Your task to perform on an android device: install app "Life360: Find Family & Friends" Image 0: 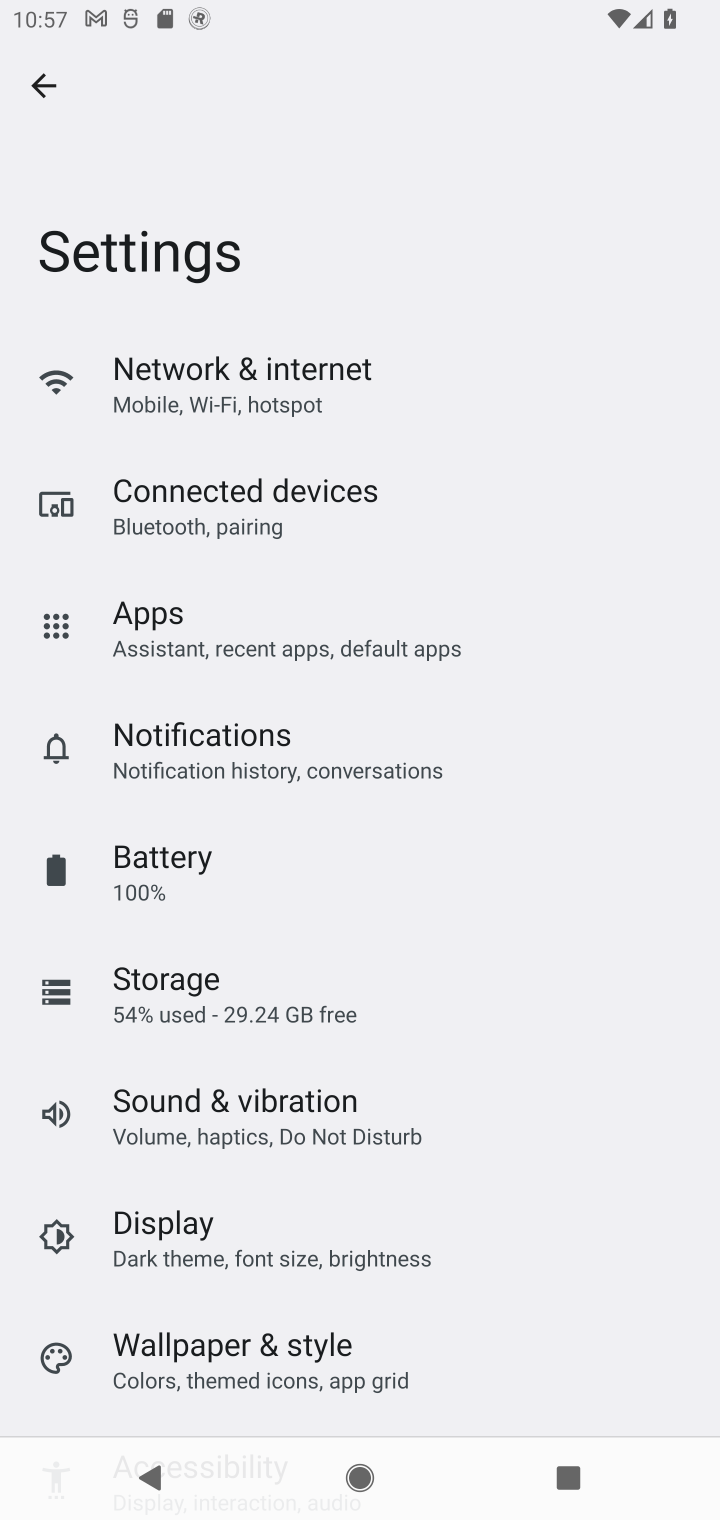
Step 0: press home button
Your task to perform on an android device: install app "Life360: Find Family & Friends" Image 1: 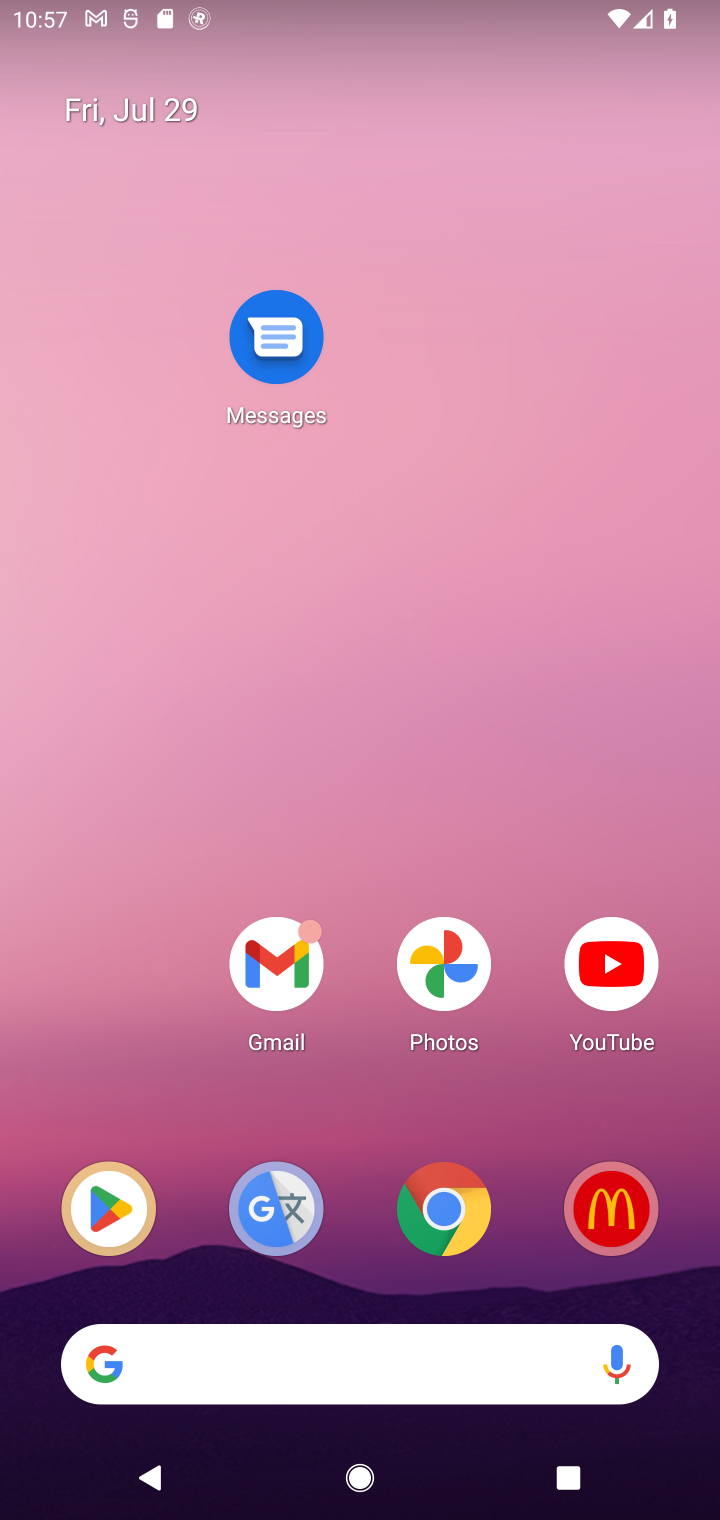
Step 1: drag from (211, 1341) to (307, 177)
Your task to perform on an android device: install app "Life360: Find Family & Friends" Image 2: 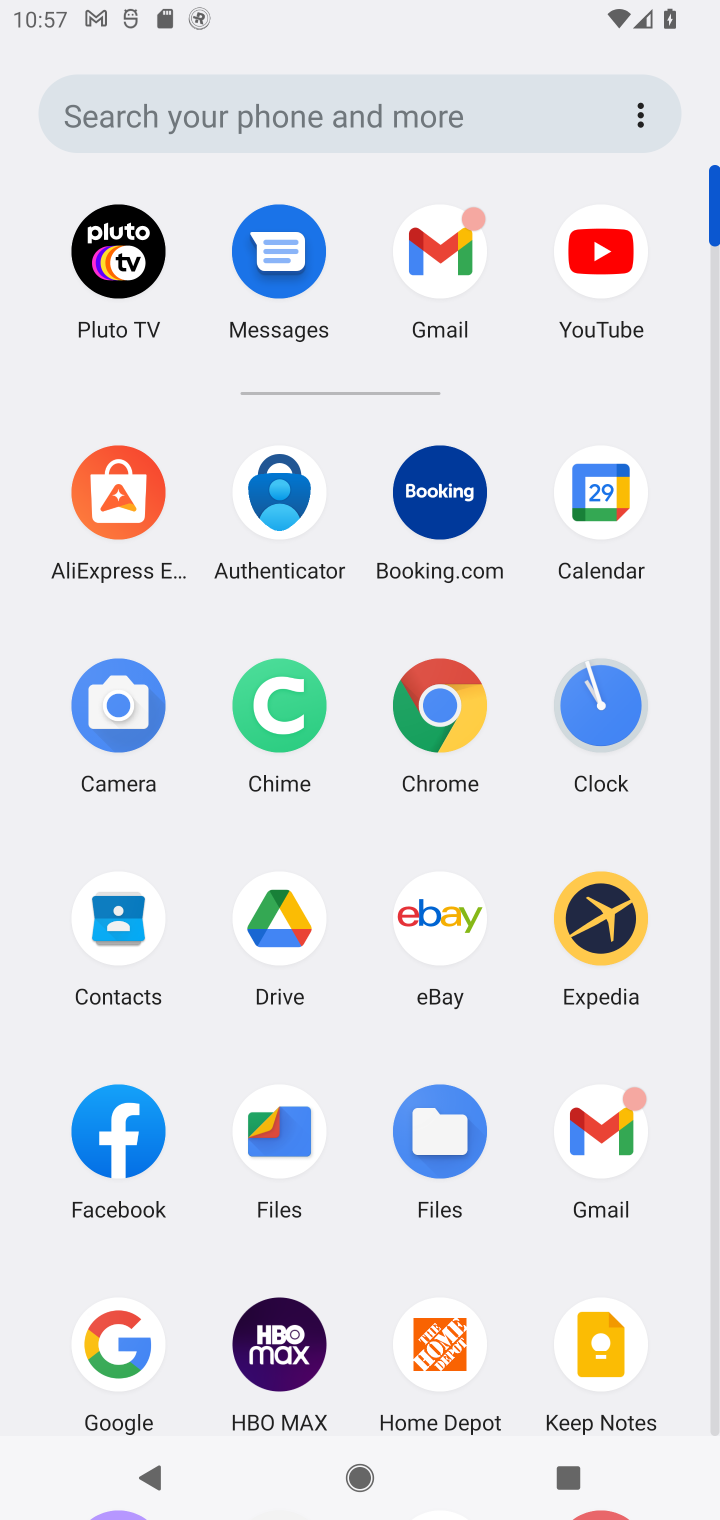
Step 2: drag from (345, 1209) to (297, 436)
Your task to perform on an android device: install app "Life360: Find Family & Friends" Image 3: 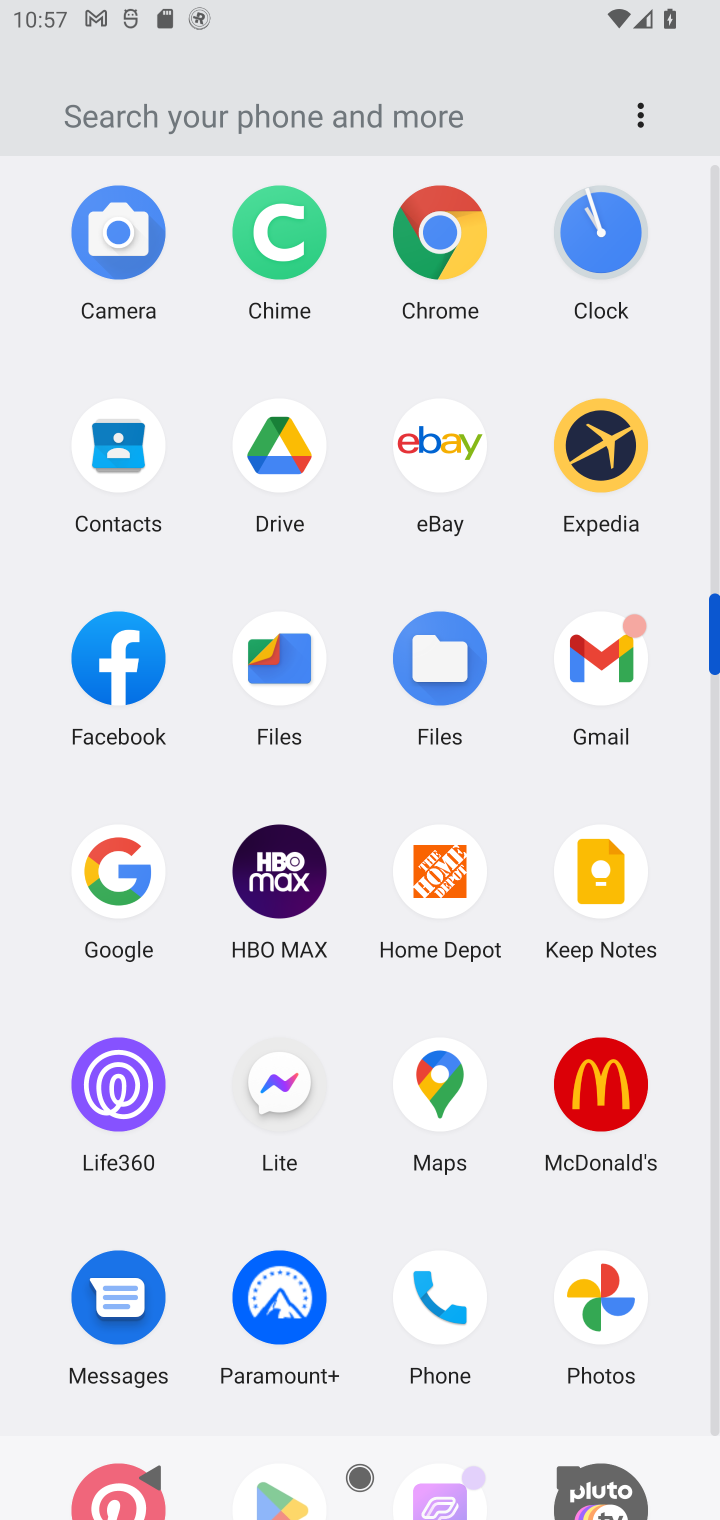
Step 3: click (281, 1504)
Your task to perform on an android device: install app "Life360: Find Family & Friends" Image 4: 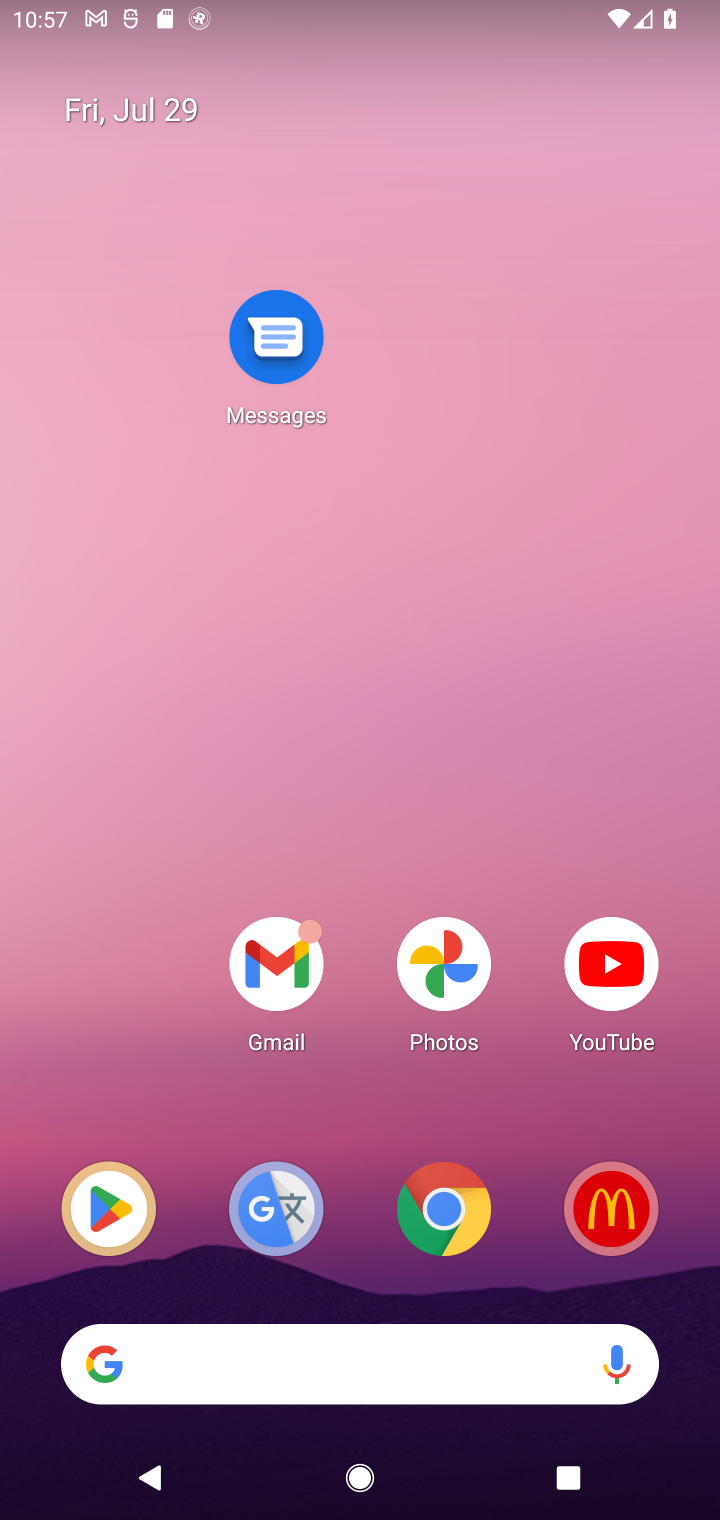
Step 4: drag from (403, 1332) to (415, 634)
Your task to perform on an android device: install app "Life360: Find Family & Friends" Image 5: 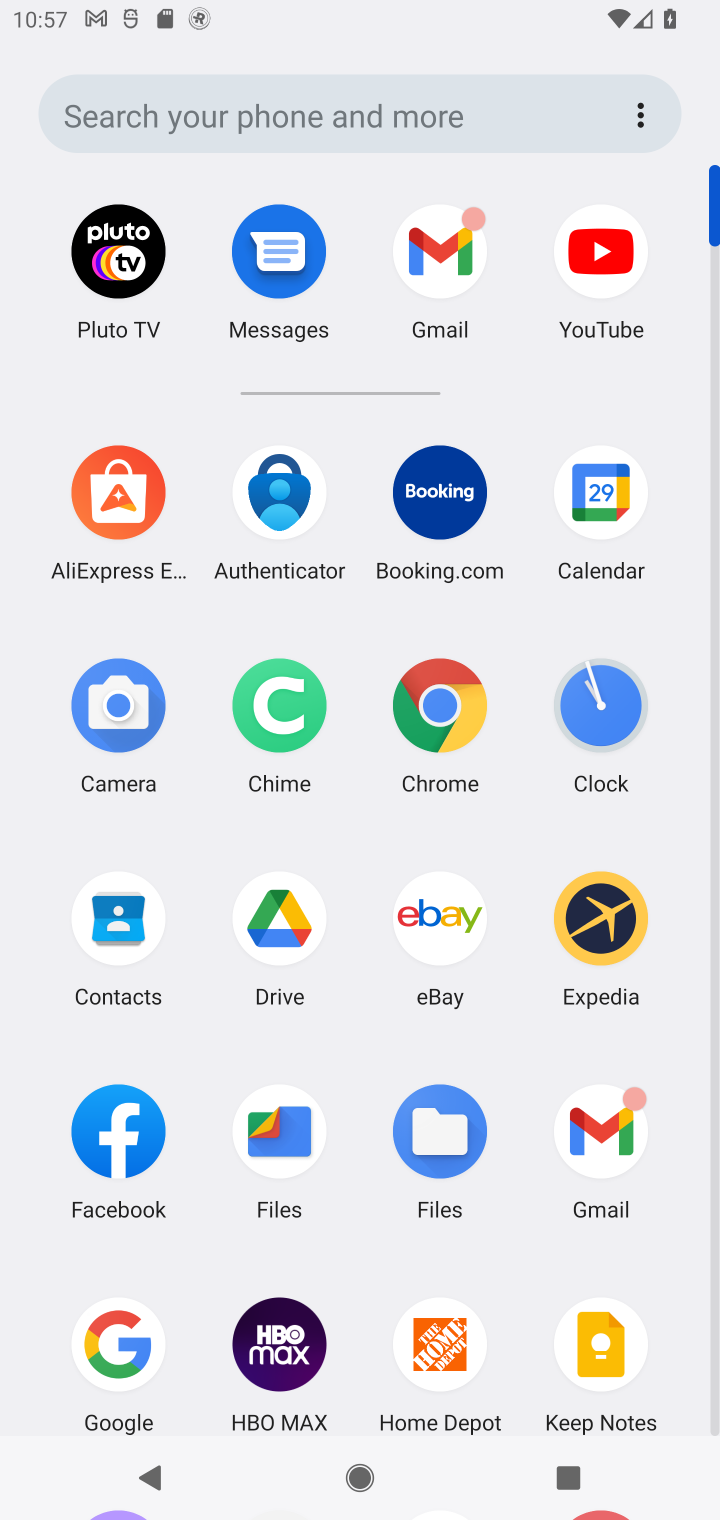
Step 5: drag from (372, 1176) to (286, 276)
Your task to perform on an android device: install app "Life360: Find Family & Friends" Image 6: 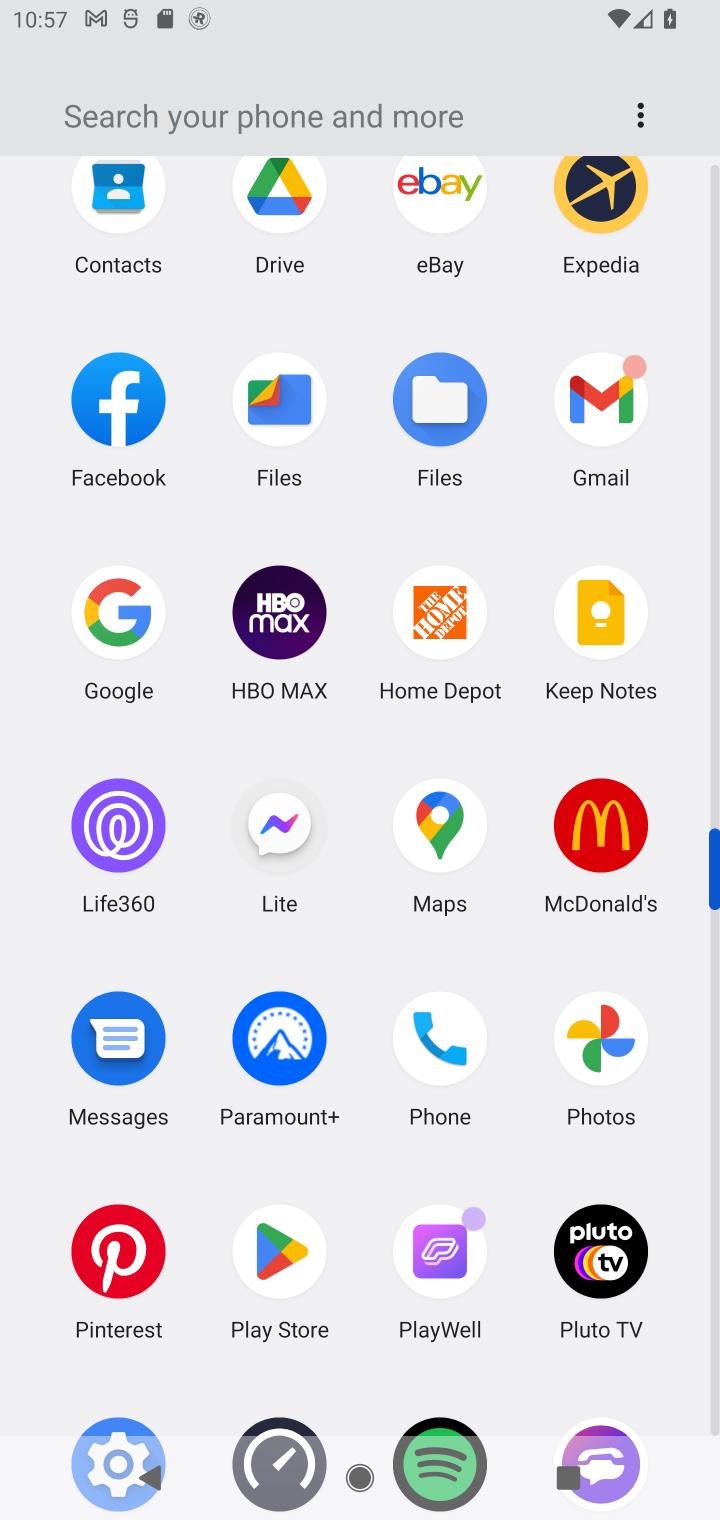
Step 6: drag from (366, 1225) to (322, 429)
Your task to perform on an android device: install app "Life360: Find Family & Friends" Image 7: 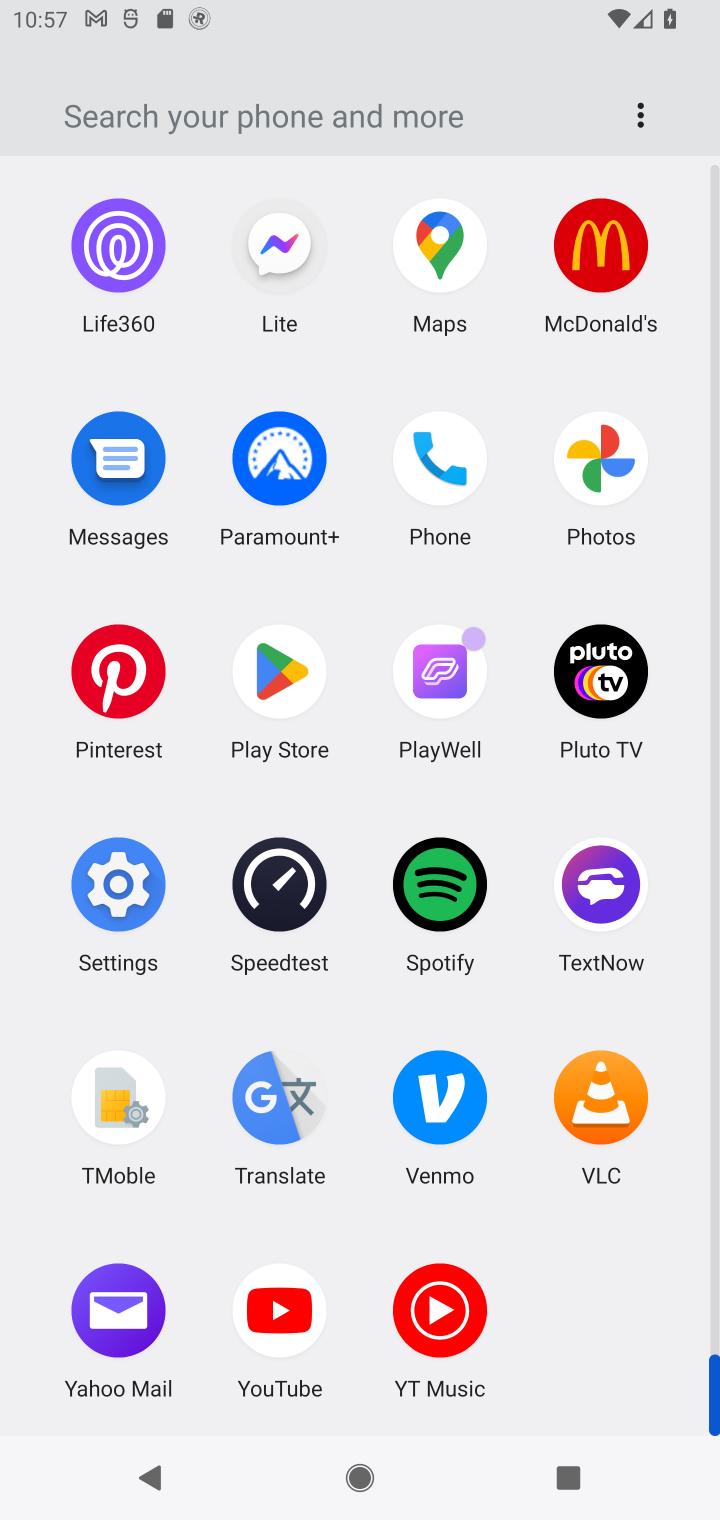
Step 7: click (279, 666)
Your task to perform on an android device: install app "Life360: Find Family & Friends" Image 8: 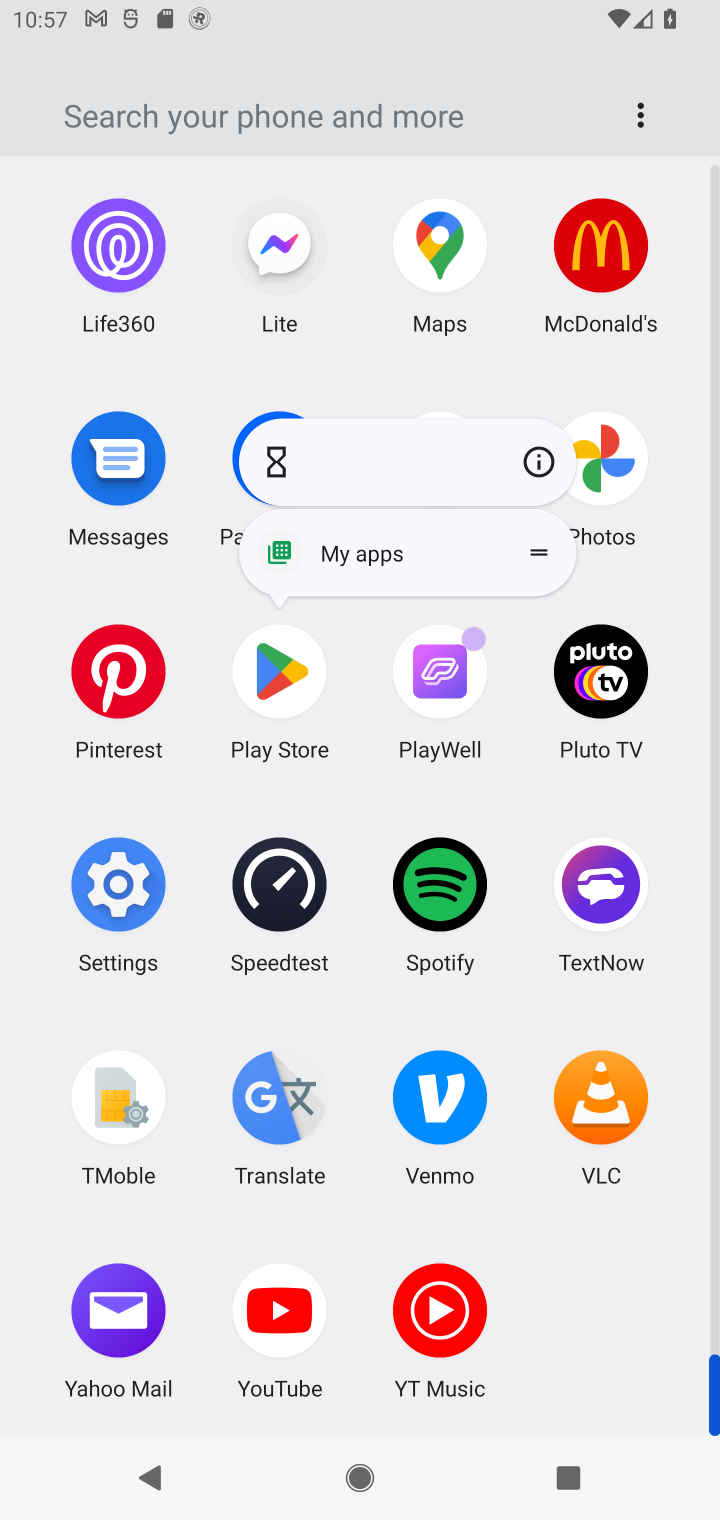
Step 8: click (279, 666)
Your task to perform on an android device: install app "Life360: Find Family & Friends" Image 9: 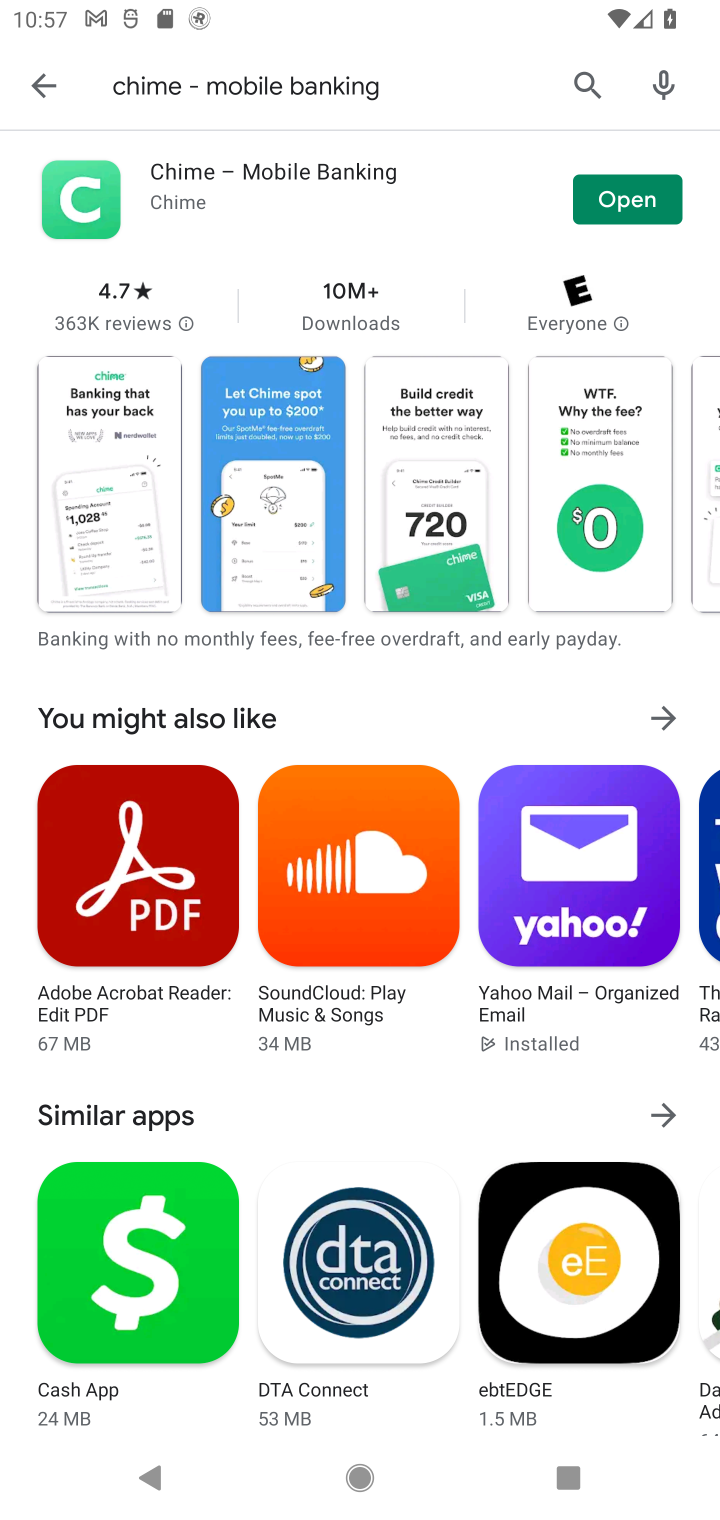
Step 9: click (584, 86)
Your task to perform on an android device: install app "Life360: Find Family & Friends" Image 10: 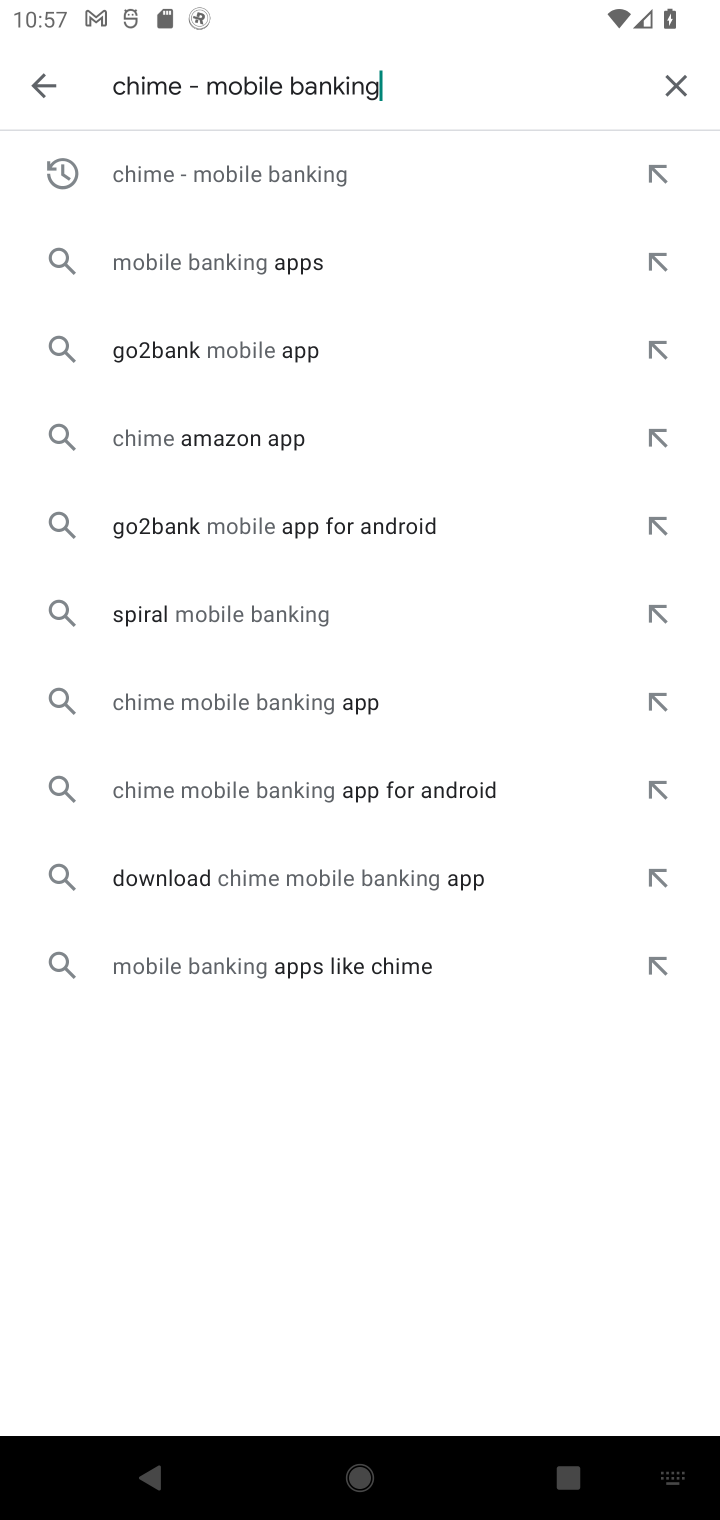
Step 10: click (672, 80)
Your task to perform on an android device: install app "Life360: Find Family & Friends" Image 11: 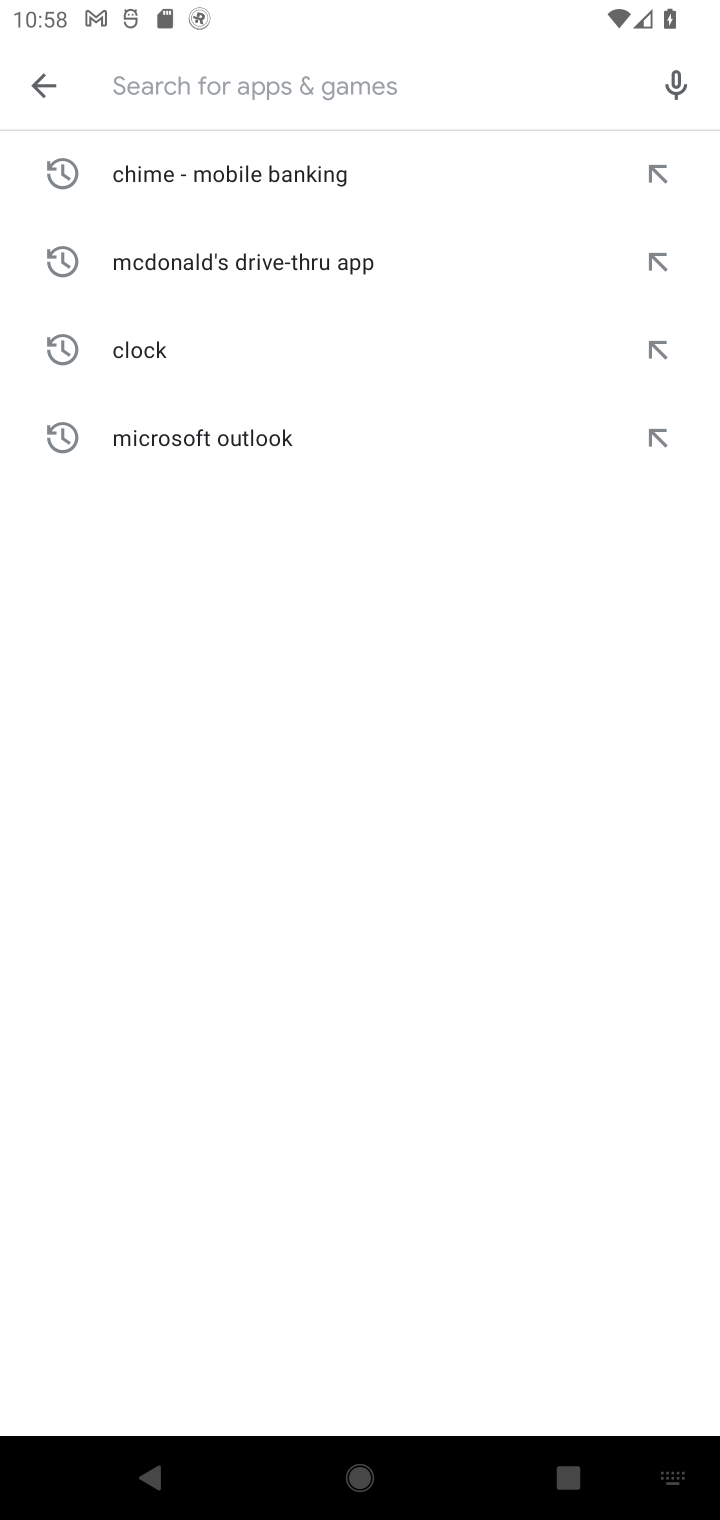
Step 11: click (260, 89)
Your task to perform on an android device: install app "Life360: Find Family & Friends" Image 12: 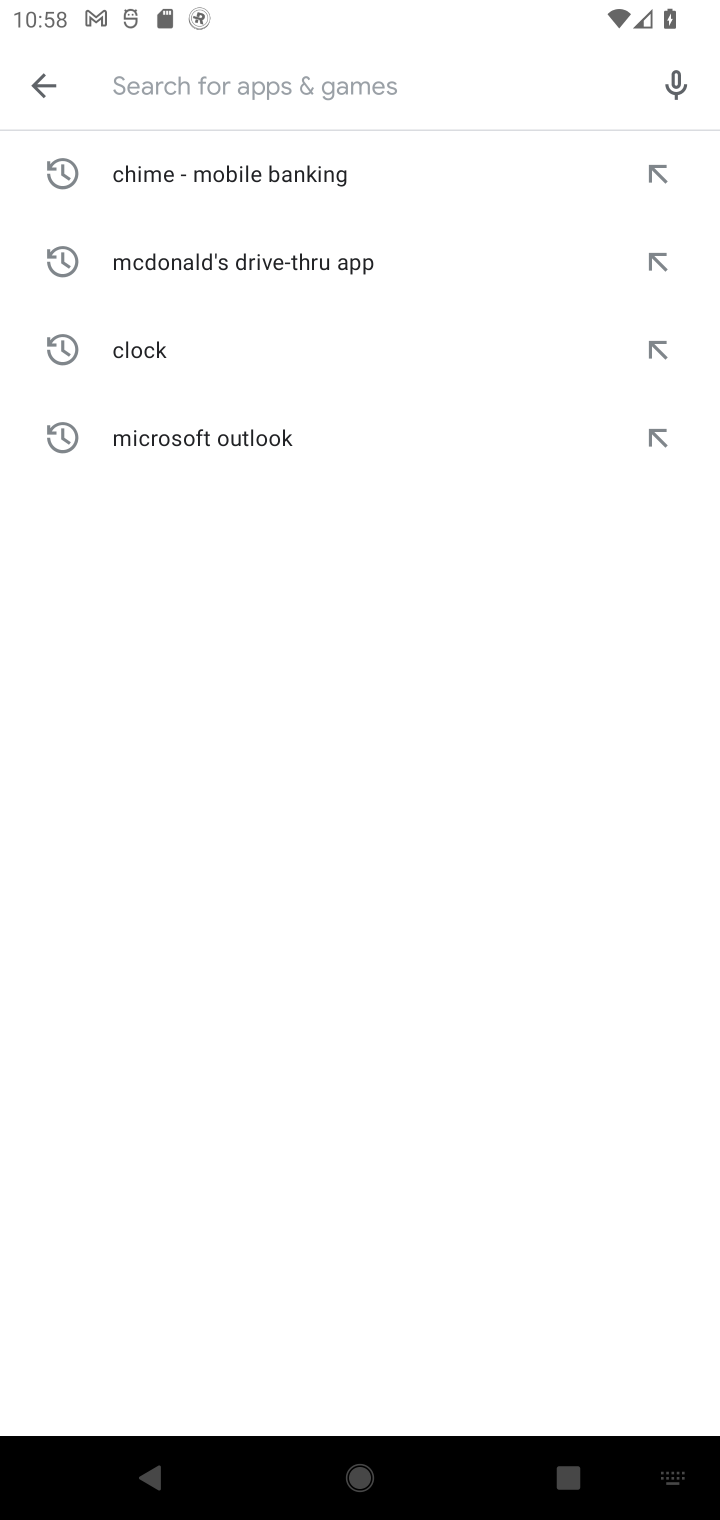
Step 12: type "Life360: Find Family & Friends"
Your task to perform on an android device: install app "Life360: Find Family & Friends" Image 13: 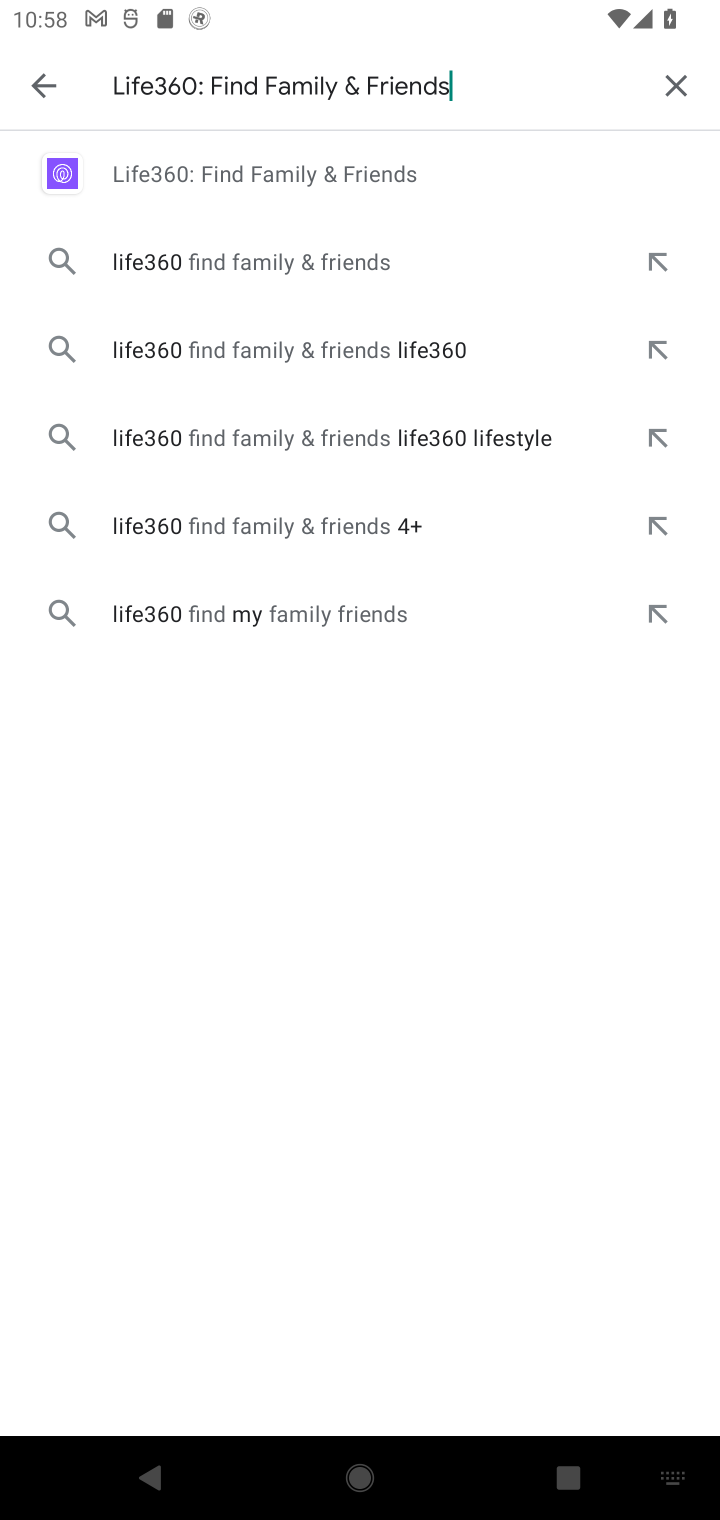
Step 13: click (239, 167)
Your task to perform on an android device: install app "Life360: Find Family & Friends" Image 14: 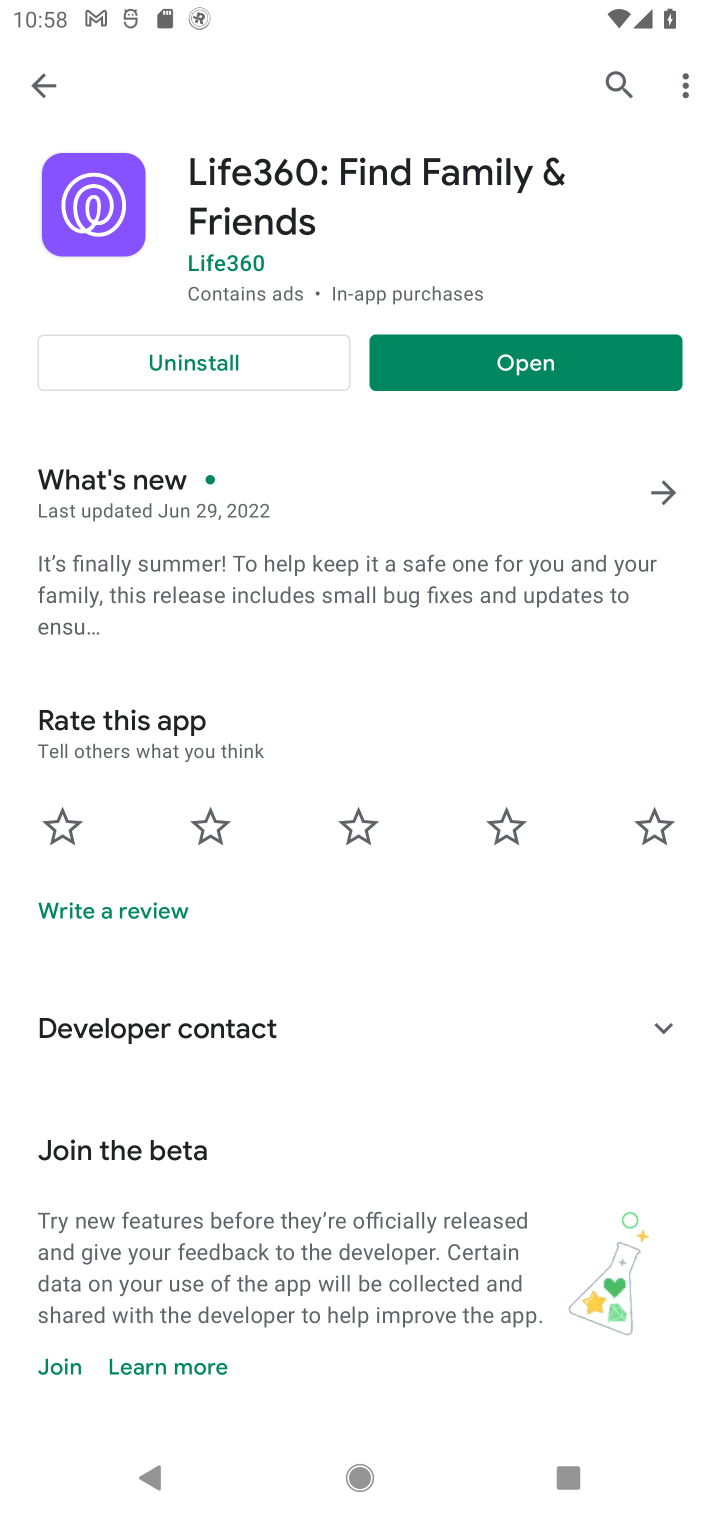
Step 14: task complete